Your task to perform on an android device: Open Youtube and go to "Your channel" Image 0: 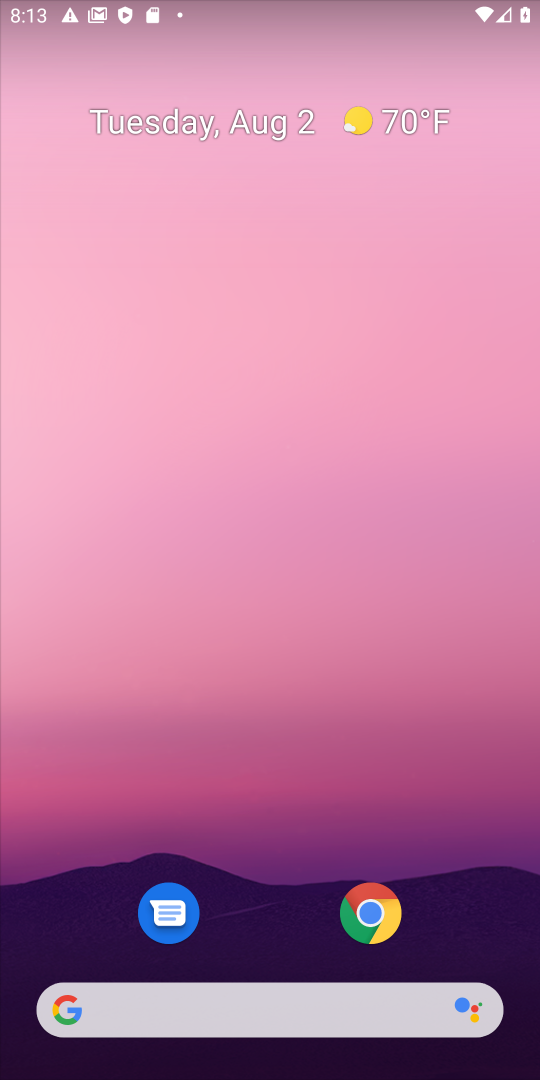
Step 0: drag from (277, 818) to (339, 1)
Your task to perform on an android device: Open Youtube and go to "Your channel" Image 1: 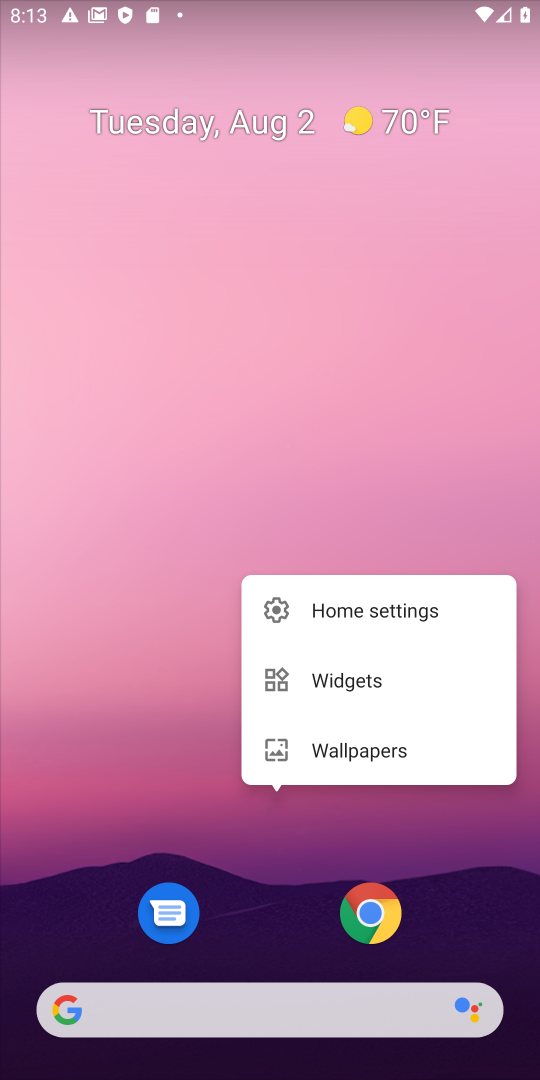
Step 1: click (189, 697)
Your task to perform on an android device: Open Youtube and go to "Your channel" Image 2: 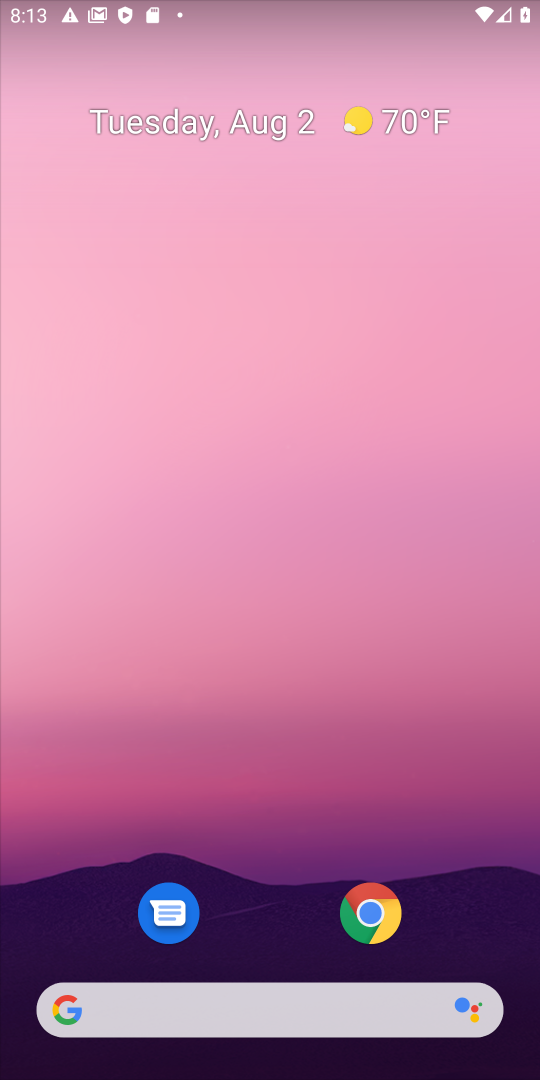
Step 2: drag from (189, 697) to (241, 293)
Your task to perform on an android device: Open Youtube and go to "Your channel" Image 3: 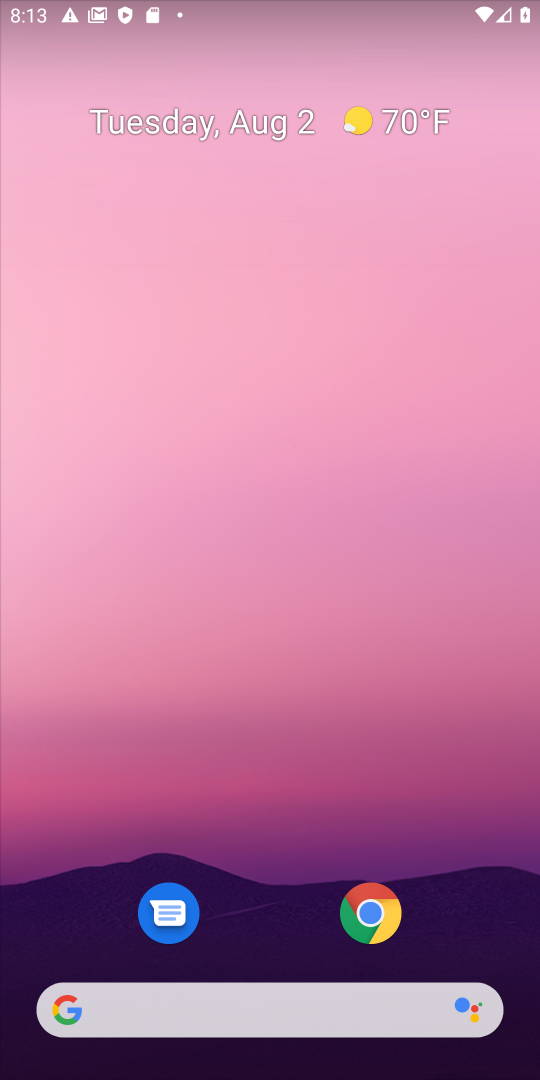
Step 3: drag from (292, 889) to (394, 479)
Your task to perform on an android device: Open Youtube and go to "Your channel" Image 4: 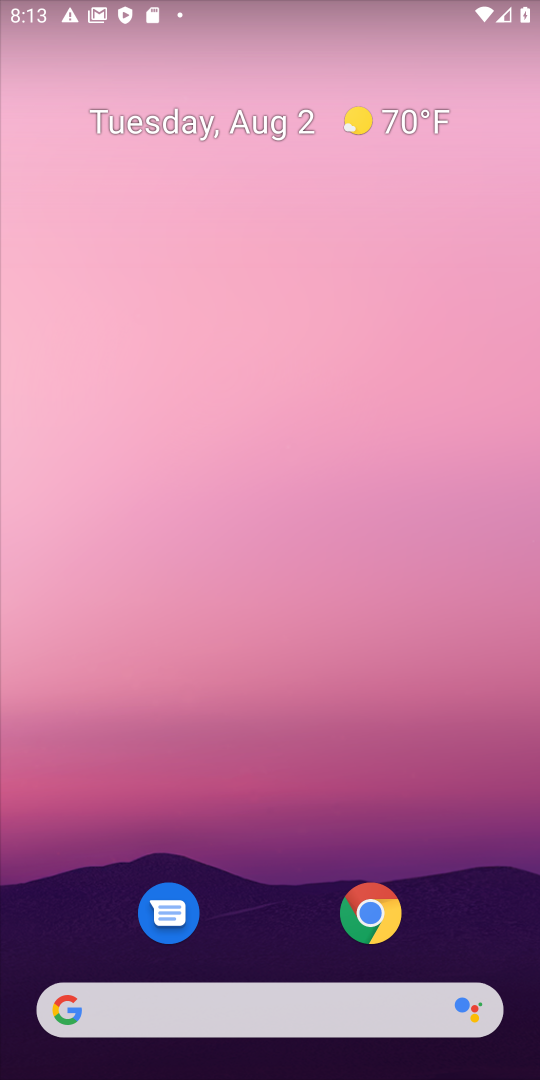
Step 4: drag from (262, 836) to (330, 120)
Your task to perform on an android device: Open Youtube and go to "Your channel" Image 5: 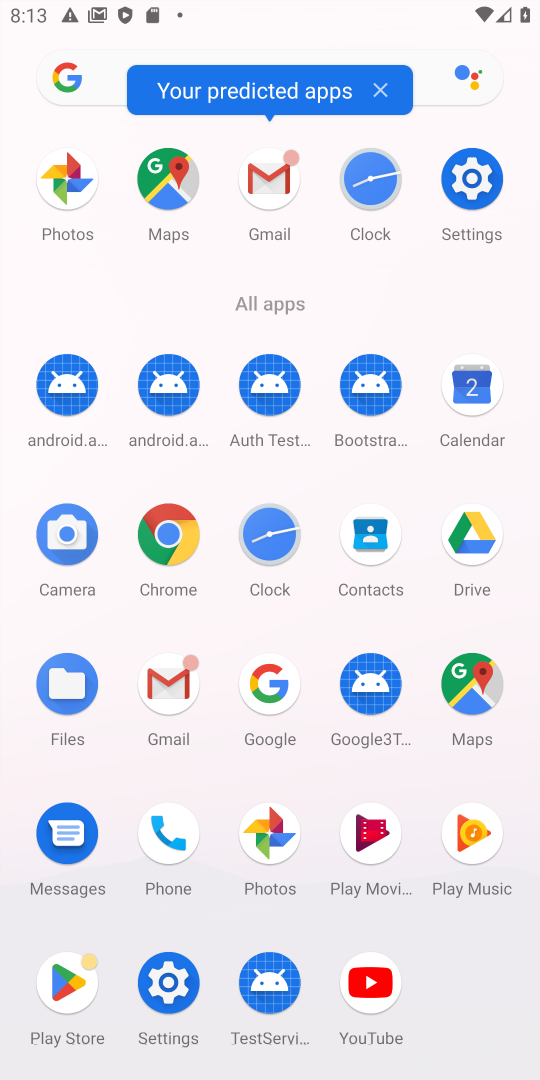
Step 5: click (374, 981)
Your task to perform on an android device: Open Youtube and go to "Your channel" Image 6: 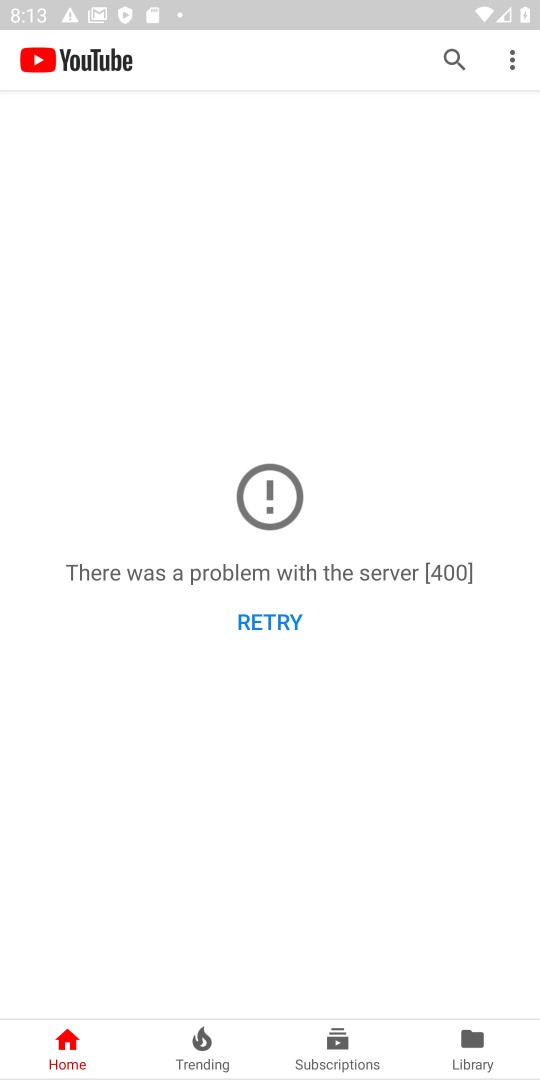
Step 6: click (512, 58)
Your task to perform on an android device: Open Youtube and go to "Your channel" Image 7: 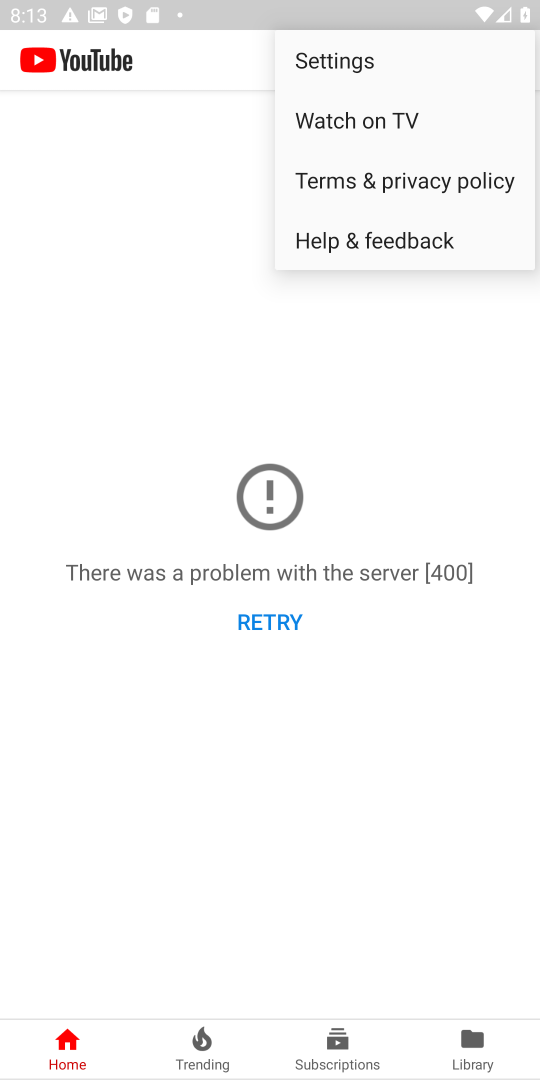
Step 7: click (362, 69)
Your task to perform on an android device: Open Youtube and go to "Your channel" Image 8: 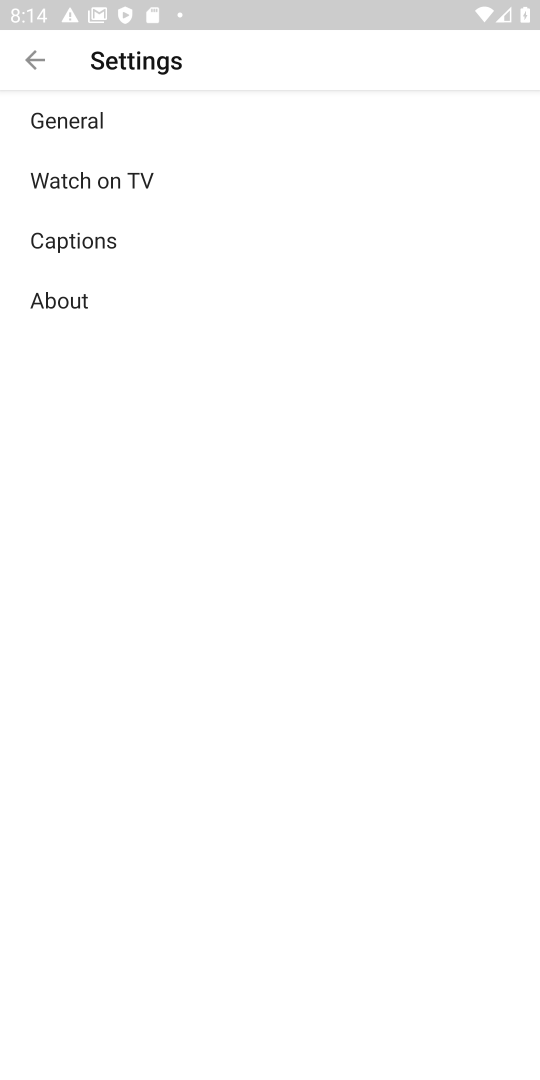
Step 8: click (80, 313)
Your task to perform on an android device: Open Youtube and go to "Your channel" Image 9: 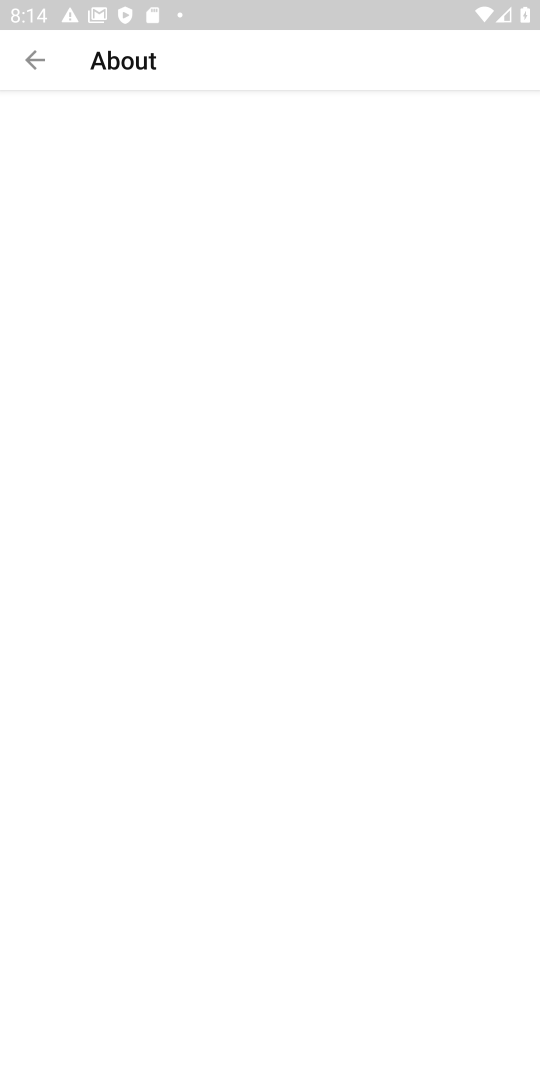
Step 9: task complete